Your task to perform on an android device: Go to wifi settings Image 0: 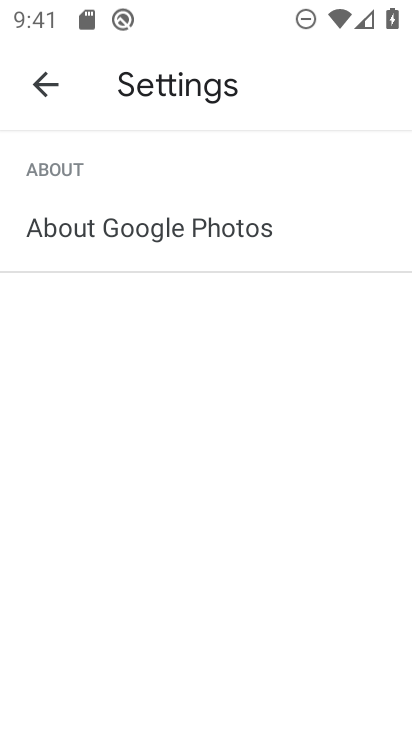
Step 0: press home button
Your task to perform on an android device: Go to wifi settings Image 1: 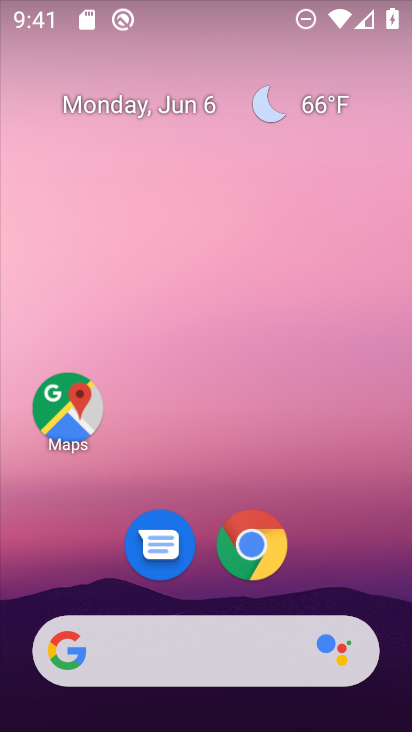
Step 1: drag from (223, 451) to (392, 206)
Your task to perform on an android device: Go to wifi settings Image 2: 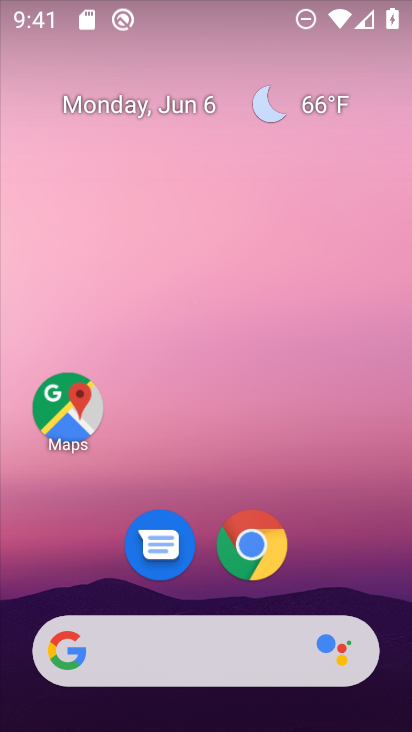
Step 2: click (341, 368)
Your task to perform on an android device: Go to wifi settings Image 3: 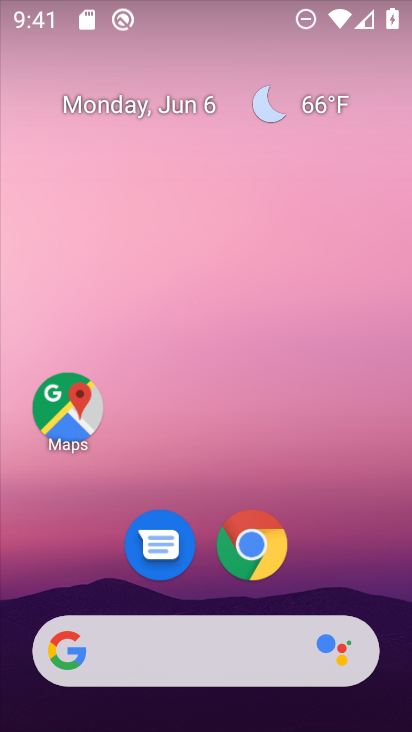
Step 3: drag from (226, 517) to (411, 11)
Your task to perform on an android device: Go to wifi settings Image 4: 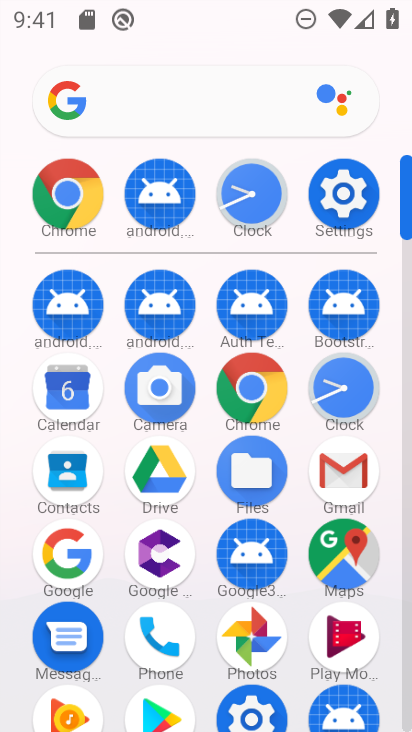
Step 4: click (339, 196)
Your task to perform on an android device: Go to wifi settings Image 5: 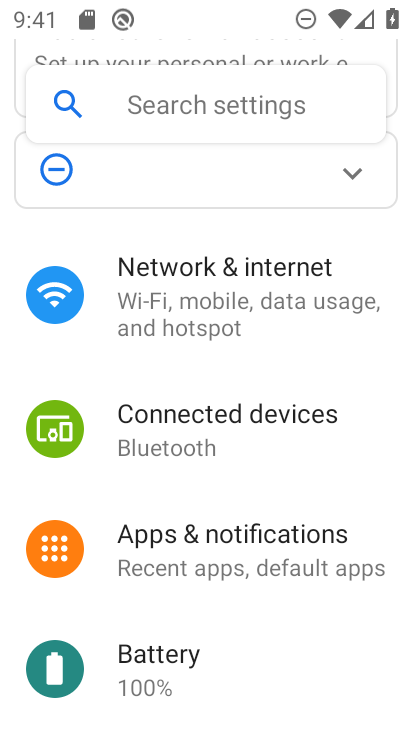
Step 5: click (194, 286)
Your task to perform on an android device: Go to wifi settings Image 6: 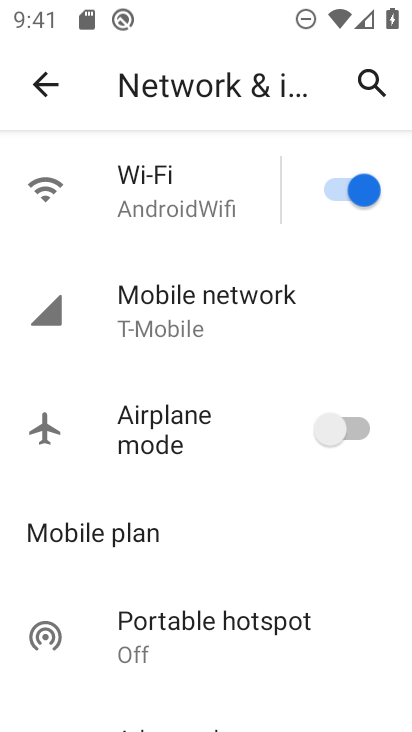
Step 6: task complete